Your task to perform on an android device: Open ESPN.com Image 0: 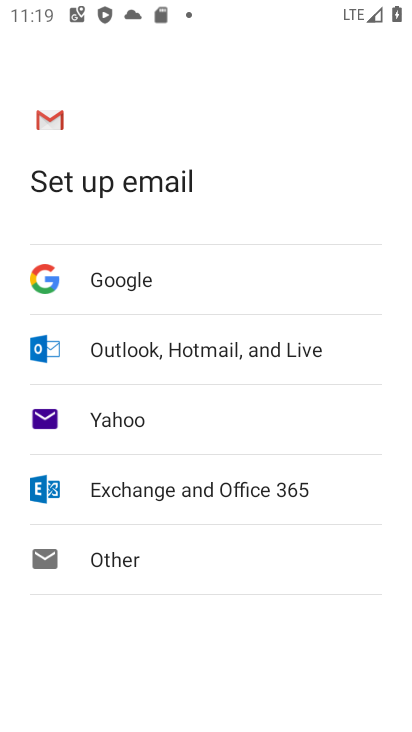
Step 0: press home button
Your task to perform on an android device: Open ESPN.com Image 1: 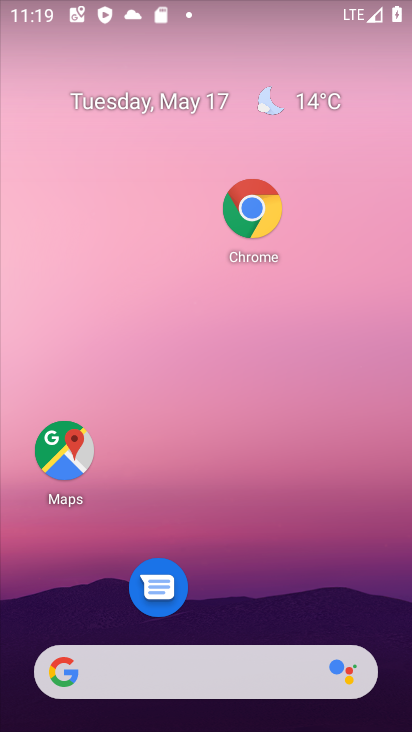
Step 1: click (250, 215)
Your task to perform on an android device: Open ESPN.com Image 2: 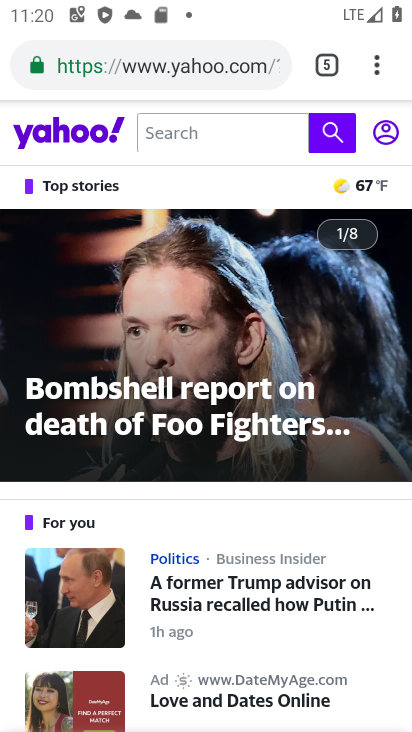
Step 2: click (319, 58)
Your task to perform on an android device: Open ESPN.com Image 3: 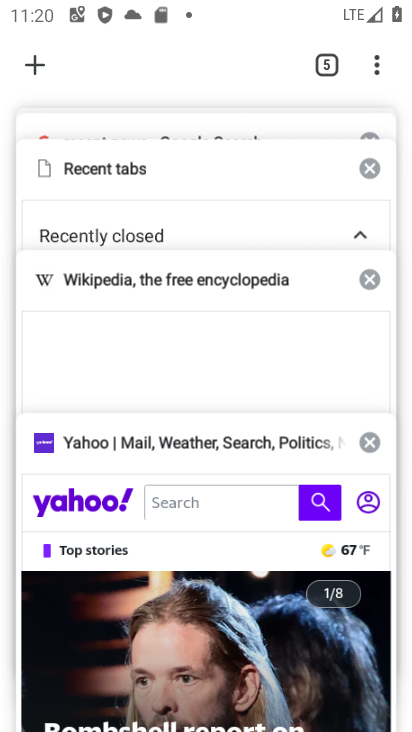
Step 3: click (34, 67)
Your task to perform on an android device: Open ESPN.com Image 4: 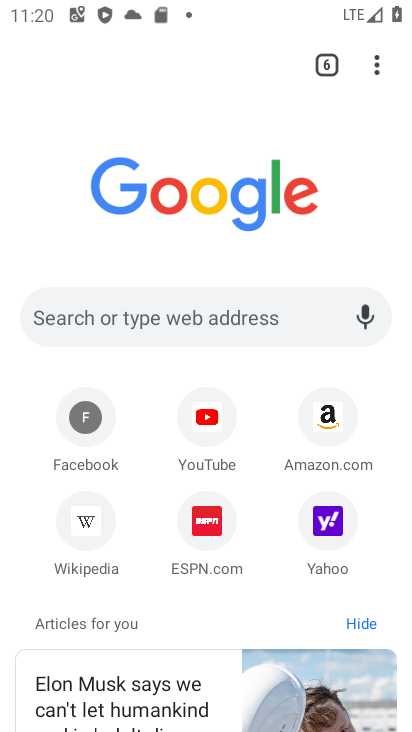
Step 4: click (215, 513)
Your task to perform on an android device: Open ESPN.com Image 5: 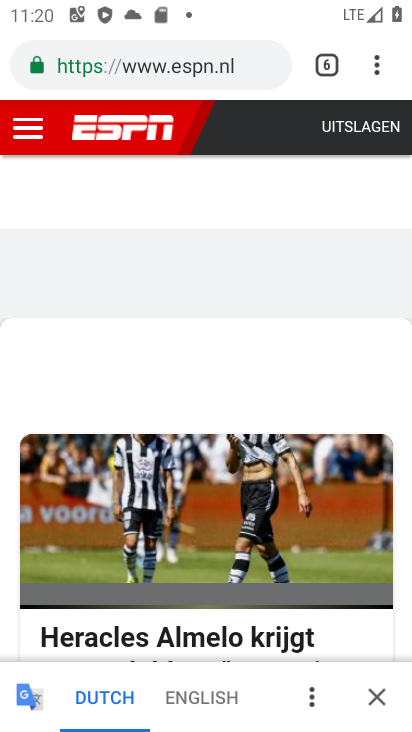
Step 5: task complete